Your task to perform on an android device: Open Google Chrome and click the shortcut for Amazon.com Image 0: 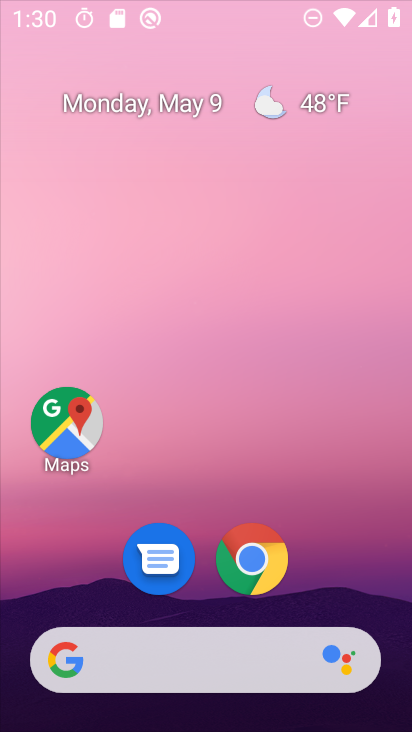
Step 0: click (264, 141)
Your task to perform on an android device: Open Google Chrome and click the shortcut for Amazon.com Image 1: 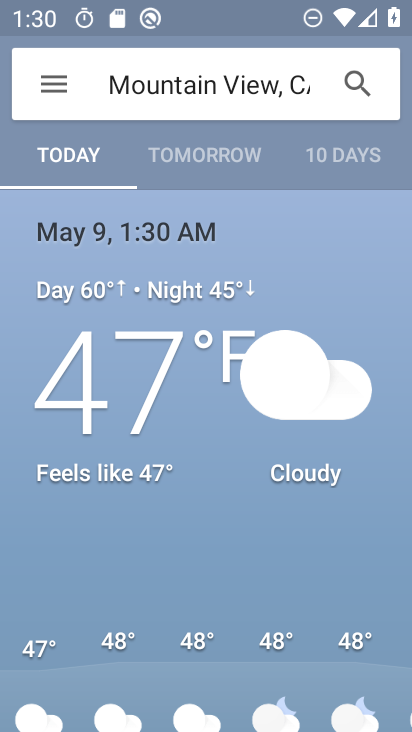
Step 1: drag from (210, 523) to (255, 181)
Your task to perform on an android device: Open Google Chrome and click the shortcut for Amazon.com Image 2: 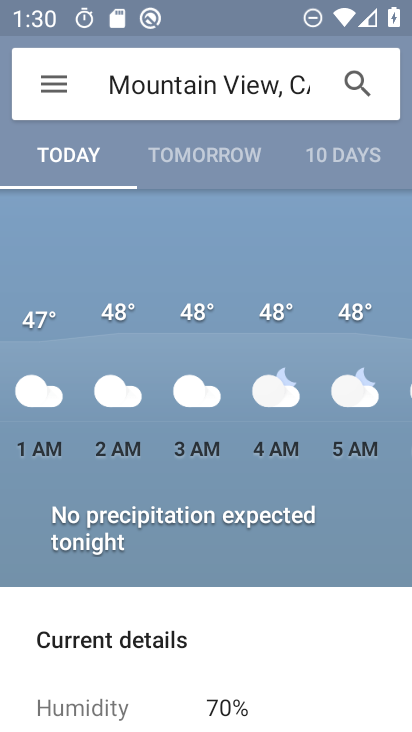
Step 2: drag from (213, 260) to (252, 674)
Your task to perform on an android device: Open Google Chrome and click the shortcut for Amazon.com Image 3: 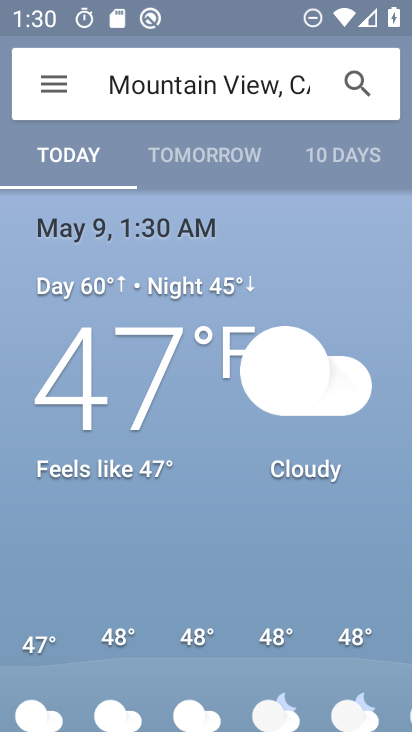
Step 3: click (252, 729)
Your task to perform on an android device: Open Google Chrome and click the shortcut for Amazon.com Image 4: 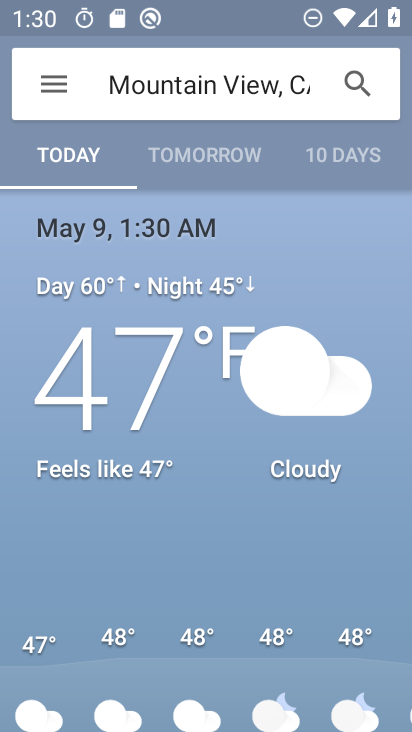
Step 4: drag from (182, 321) to (234, 721)
Your task to perform on an android device: Open Google Chrome and click the shortcut for Amazon.com Image 5: 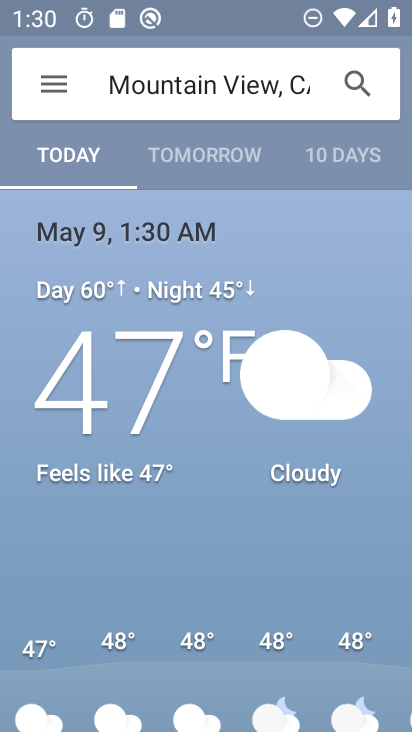
Step 5: drag from (239, 151) to (296, 627)
Your task to perform on an android device: Open Google Chrome and click the shortcut for Amazon.com Image 6: 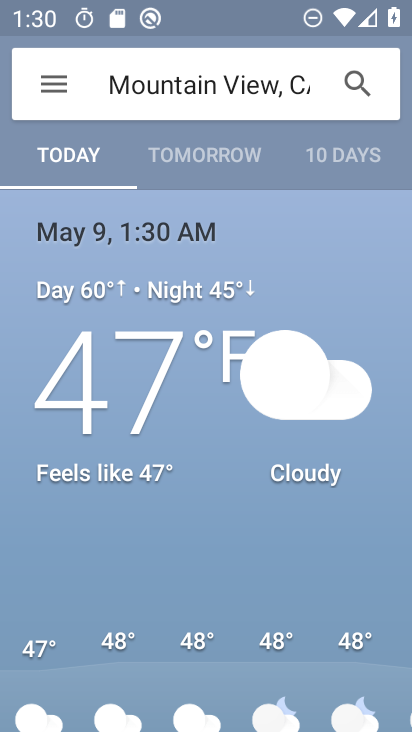
Step 6: press home button
Your task to perform on an android device: Open Google Chrome and click the shortcut for Amazon.com Image 7: 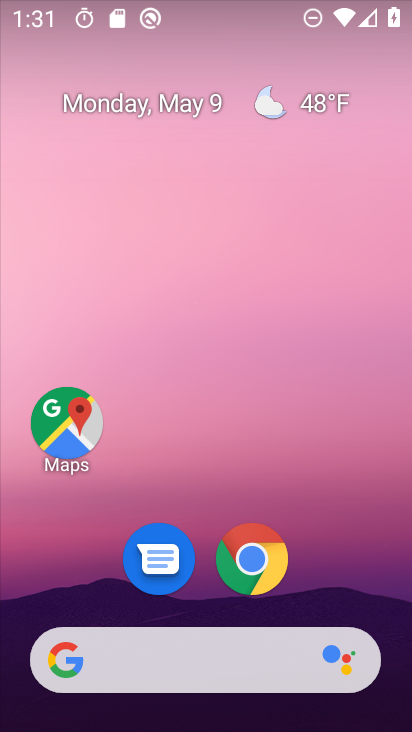
Step 7: click (255, 561)
Your task to perform on an android device: Open Google Chrome and click the shortcut for Amazon.com Image 8: 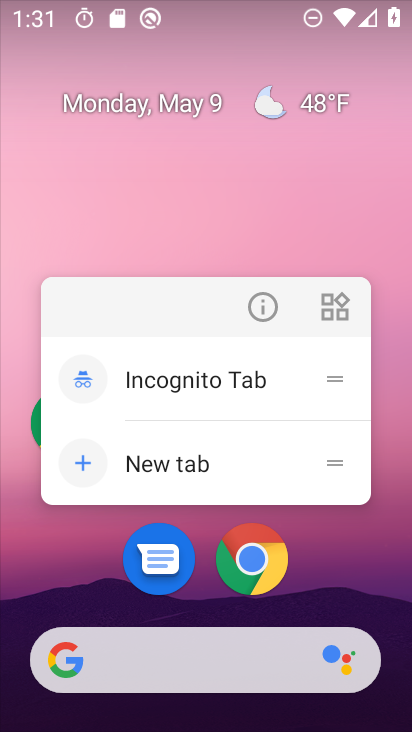
Step 8: click (260, 310)
Your task to perform on an android device: Open Google Chrome and click the shortcut for Amazon.com Image 9: 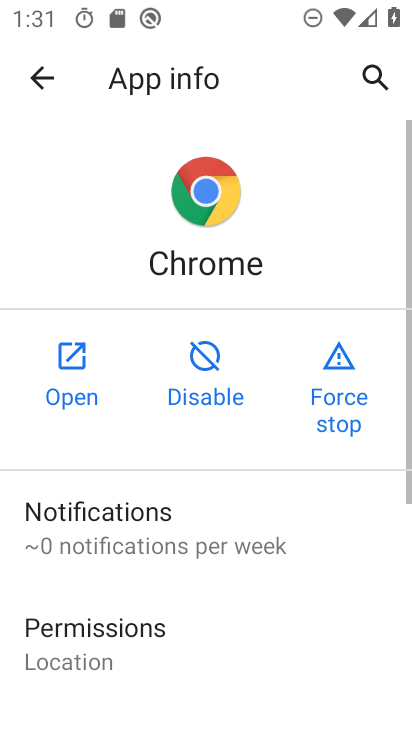
Step 9: click (68, 357)
Your task to perform on an android device: Open Google Chrome and click the shortcut for Amazon.com Image 10: 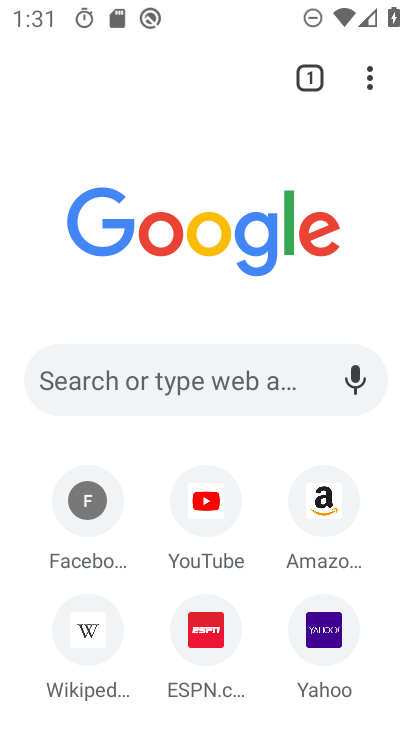
Step 10: click (319, 514)
Your task to perform on an android device: Open Google Chrome and click the shortcut for Amazon.com Image 11: 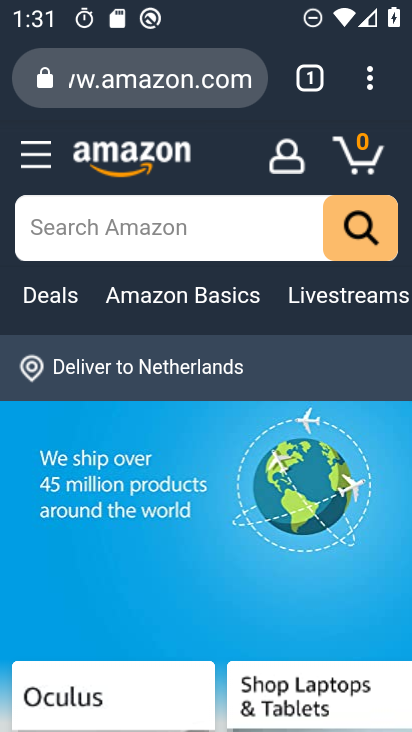
Step 11: task complete